Your task to perform on an android device: change the upload size in google photos Image 0: 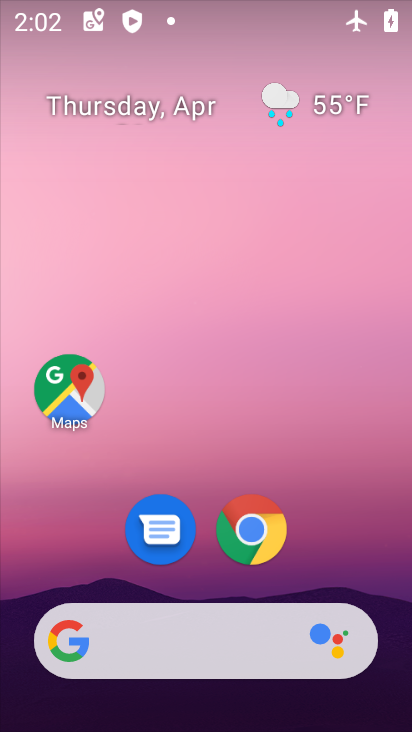
Step 0: drag from (295, 577) to (192, 252)
Your task to perform on an android device: change the upload size in google photos Image 1: 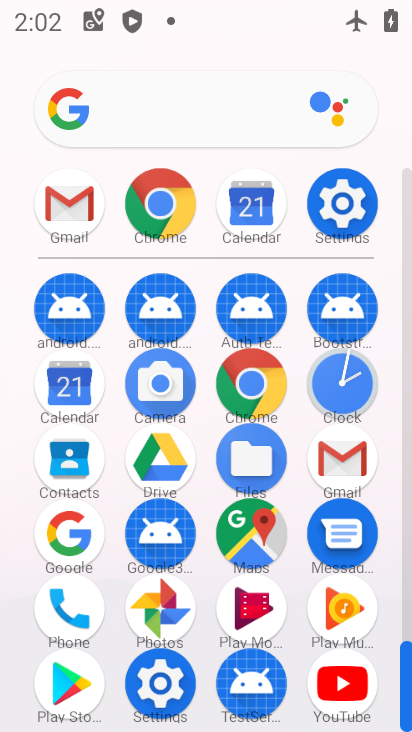
Step 1: click (155, 614)
Your task to perform on an android device: change the upload size in google photos Image 2: 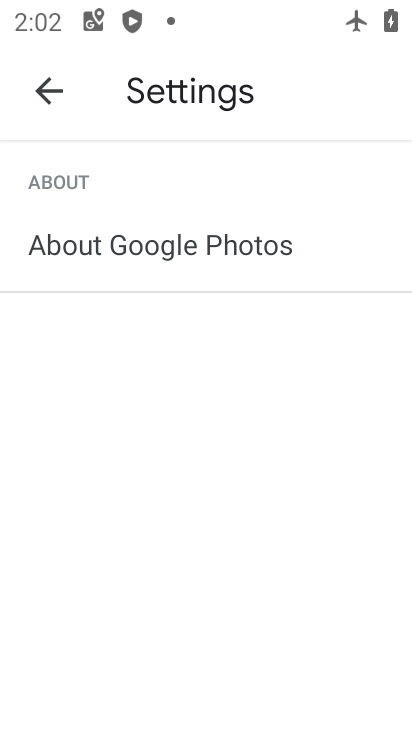
Step 2: click (26, 103)
Your task to perform on an android device: change the upload size in google photos Image 3: 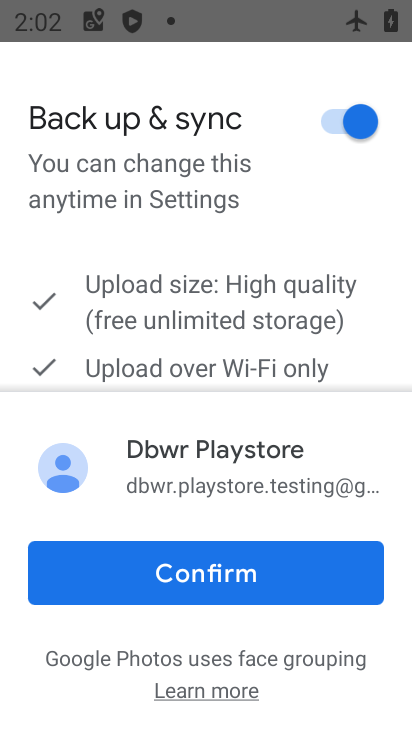
Step 3: click (69, 107)
Your task to perform on an android device: change the upload size in google photos Image 4: 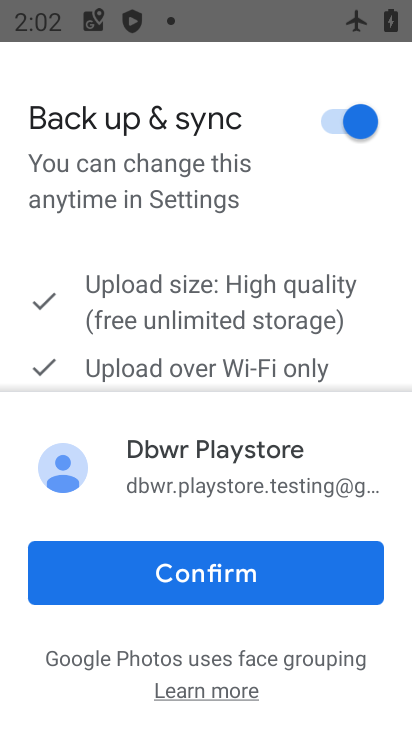
Step 4: click (256, 579)
Your task to perform on an android device: change the upload size in google photos Image 5: 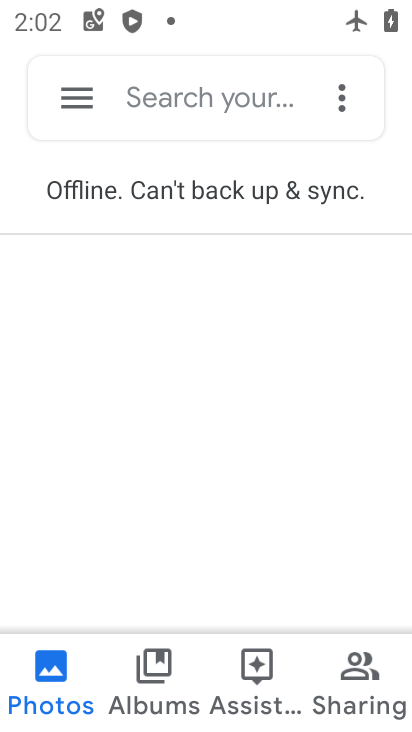
Step 5: click (72, 115)
Your task to perform on an android device: change the upload size in google photos Image 6: 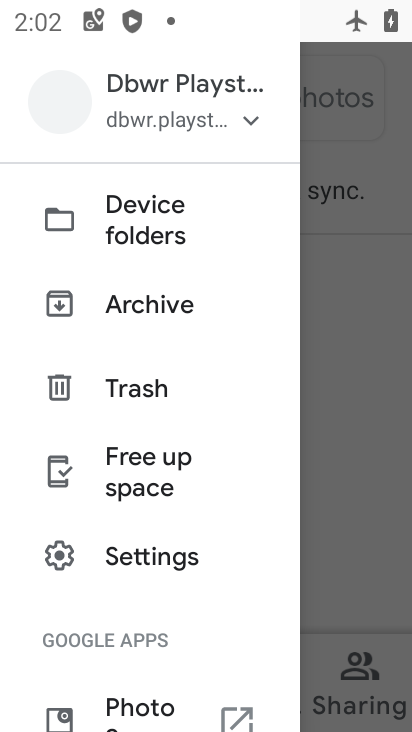
Step 6: click (163, 561)
Your task to perform on an android device: change the upload size in google photos Image 7: 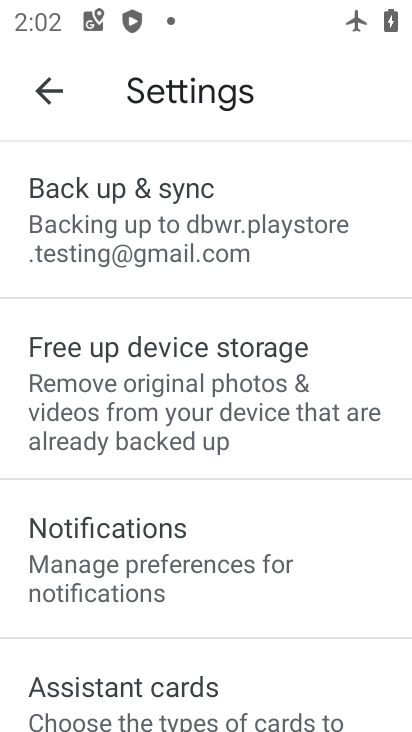
Step 7: drag from (186, 521) to (169, 554)
Your task to perform on an android device: change the upload size in google photos Image 8: 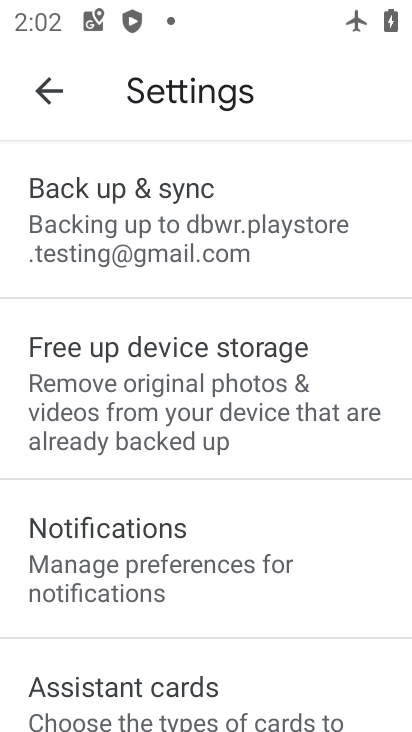
Step 8: click (180, 255)
Your task to perform on an android device: change the upload size in google photos Image 9: 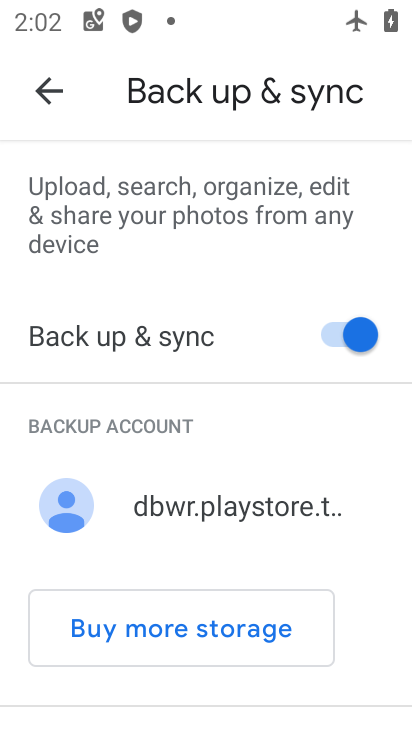
Step 9: drag from (125, 516) to (116, 167)
Your task to perform on an android device: change the upload size in google photos Image 10: 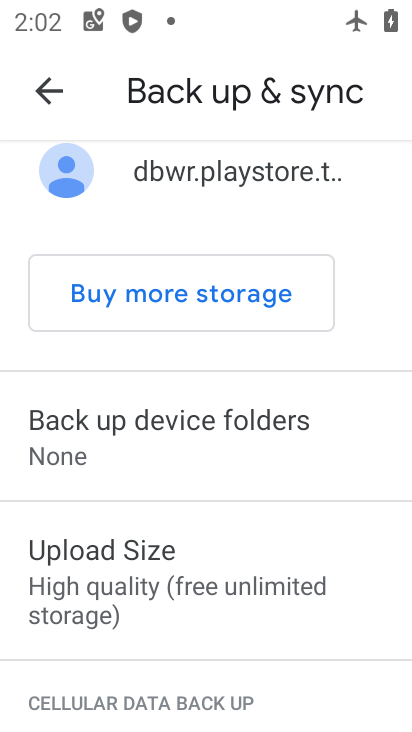
Step 10: drag from (240, 605) to (232, 442)
Your task to perform on an android device: change the upload size in google photos Image 11: 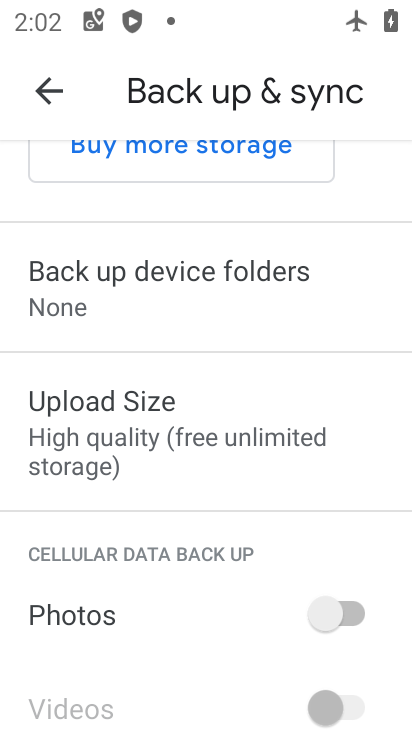
Step 11: click (209, 480)
Your task to perform on an android device: change the upload size in google photos Image 12: 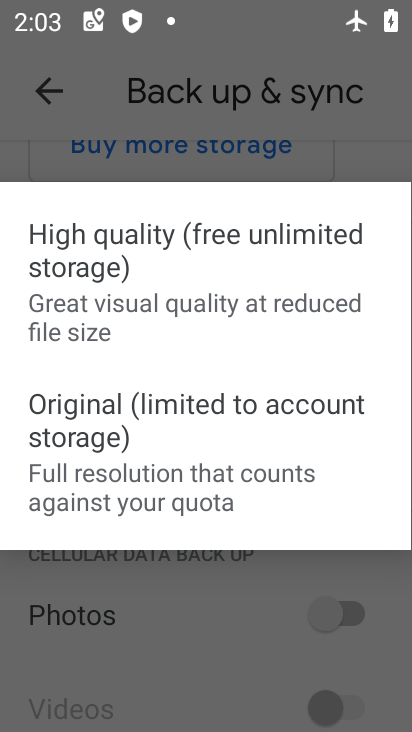
Step 12: click (157, 454)
Your task to perform on an android device: change the upload size in google photos Image 13: 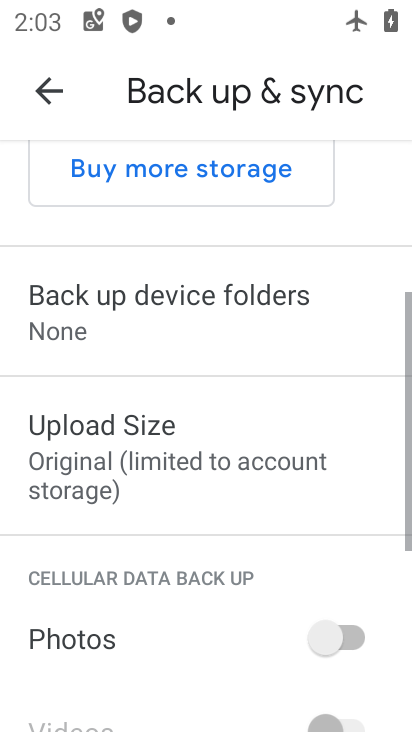
Step 13: task complete